Your task to perform on an android device: turn on data saver in the chrome app Image 0: 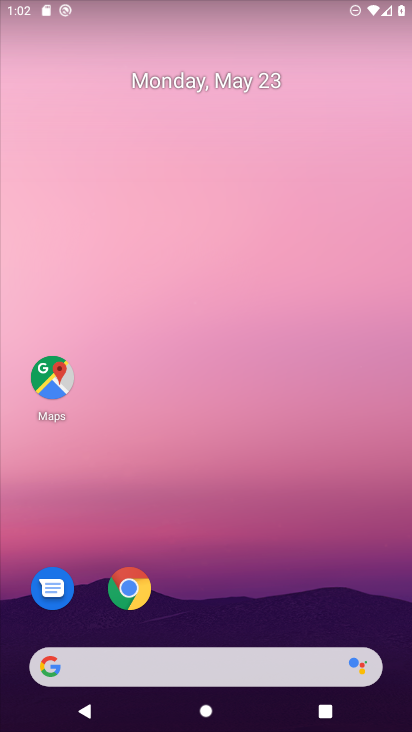
Step 0: click (126, 593)
Your task to perform on an android device: turn on data saver in the chrome app Image 1: 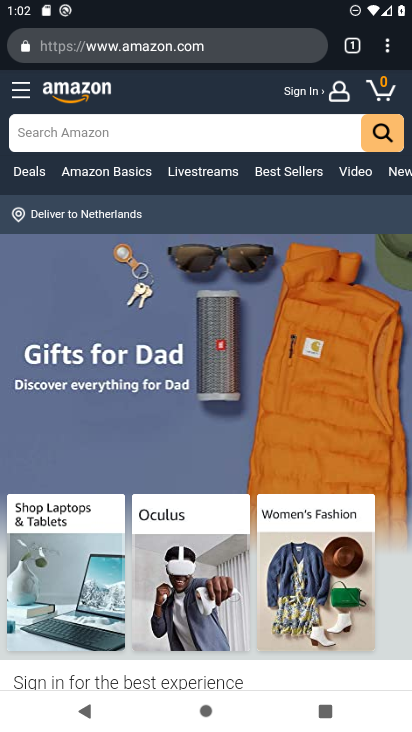
Step 1: click (386, 49)
Your task to perform on an android device: turn on data saver in the chrome app Image 2: 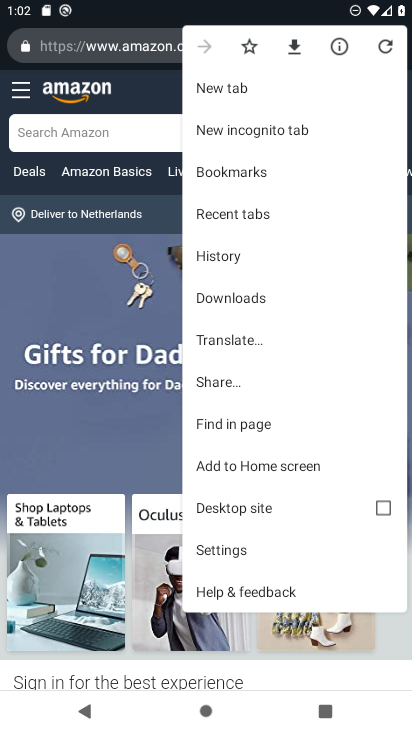
Step 2: click (239, 550)
Your task to perform on an android device: turn on data saver in the chrome app Image 3: 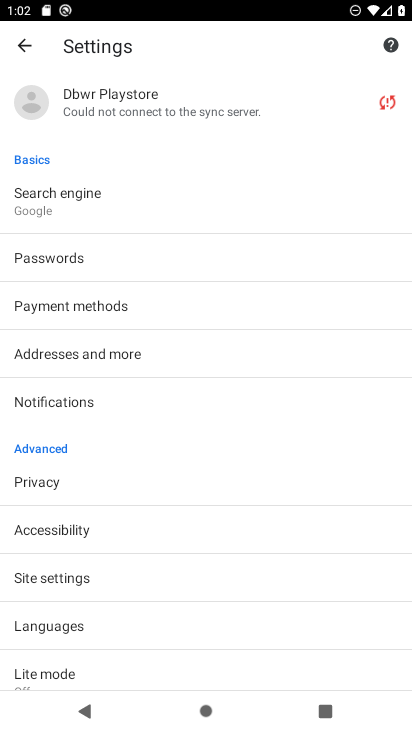
Step 3: click (40, 680)
Your task to perform on an android device: turn on data saver in the chrome app Image 4: 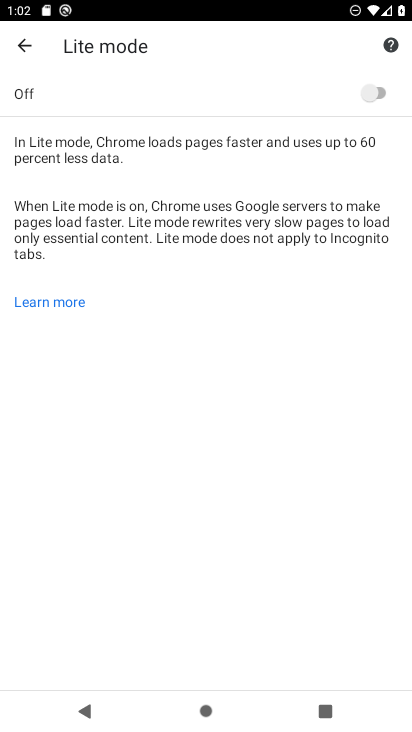
Step 4: click (377, 94)
Your task to perform on an android device: turn on data saver in the chrome app Image 5: 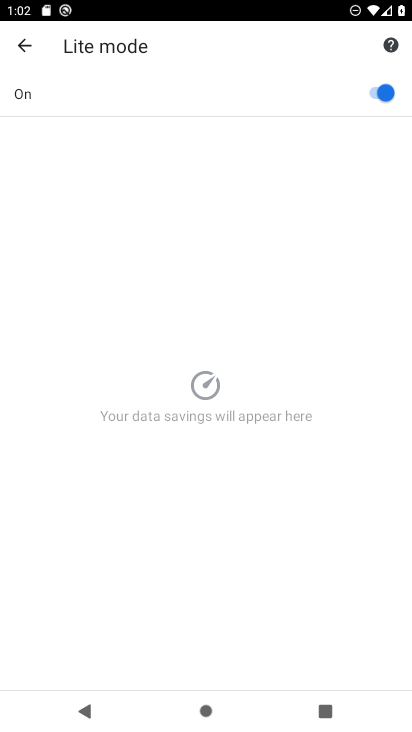
Step 5: task complete